Your task to perform on an android device: Open network settings Image 0: 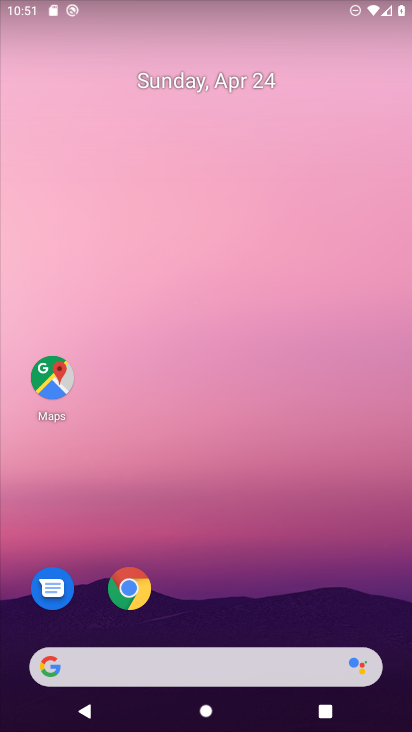
Step 0: drag from (246, 561) to (307, 125)
Your task to perform on an android device: Open network settings Image 1: 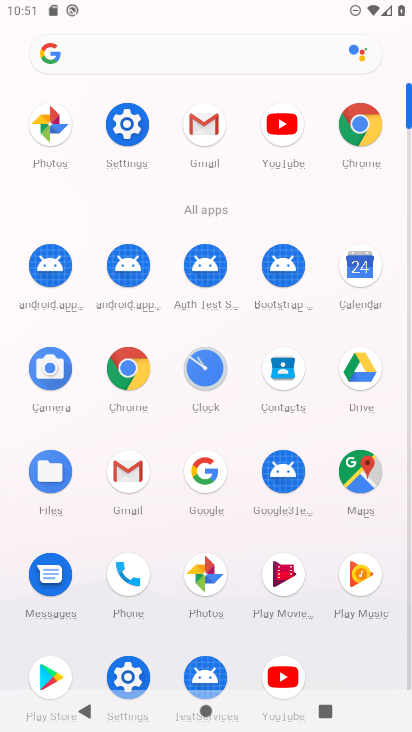
Step 1: click (123, 663)
Your task to perform on an android device: Open network settings Image 2: 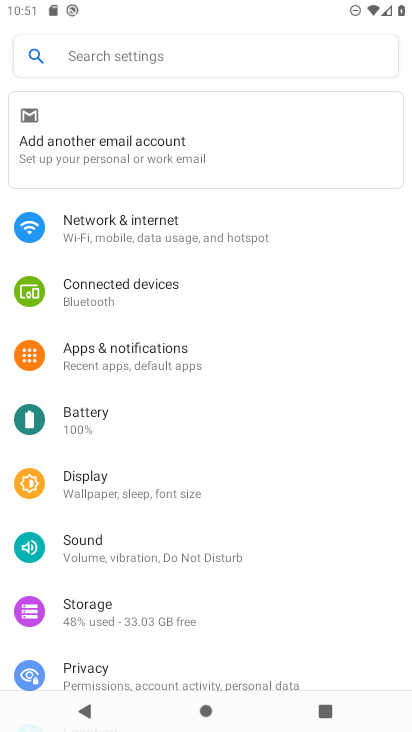
Step 2: click (160, 218)
Your task to perform on an android device: Open network settings Image 3: 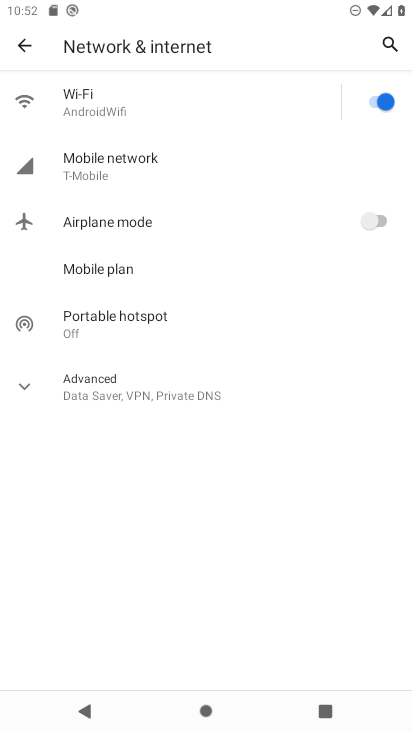
Step 3: task complete